Your task to perform on an android device: toggle notification dots Image 0: 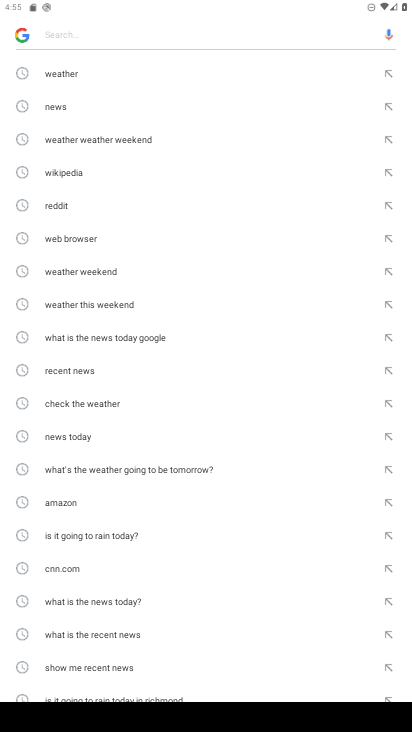
Step 0: press home button
Your task to perform on an android device: toggle notification dots Image 1: 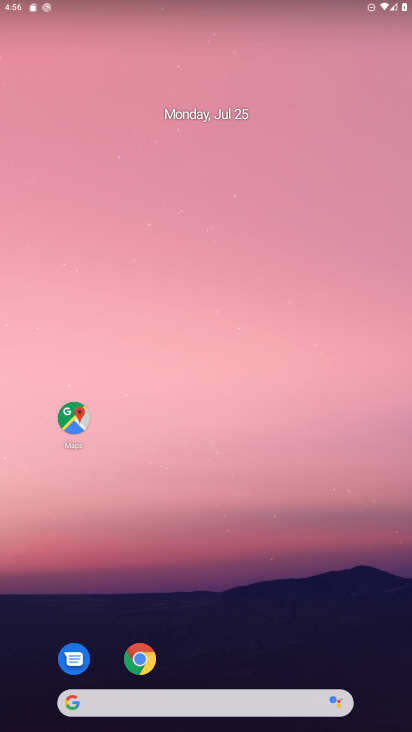
Step 1: drag from (190, 499) to (190, 218)
Your task to perform on an android device: toggle notification dots Image 2: 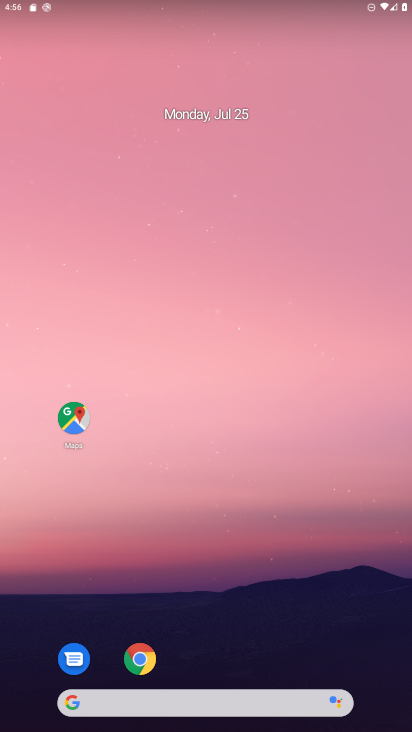
Step 2: drag from (200, 600) to (170, 11)
Your task to perform on an android device: toggle notification dots Image 3: 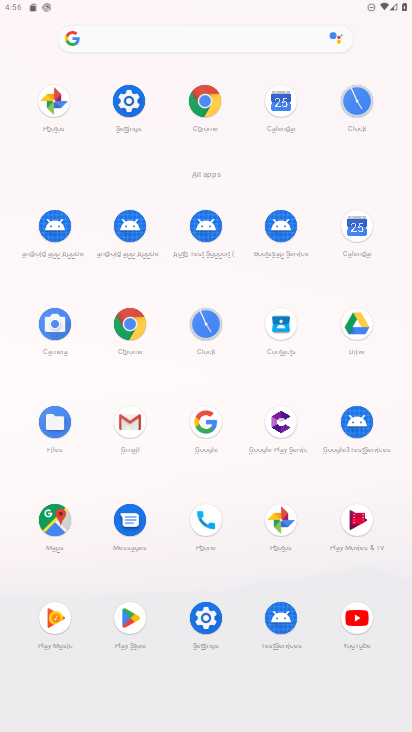
Step 3: click (130, 99)
Your task to perform on an android device: toggle notification dots Image 4: 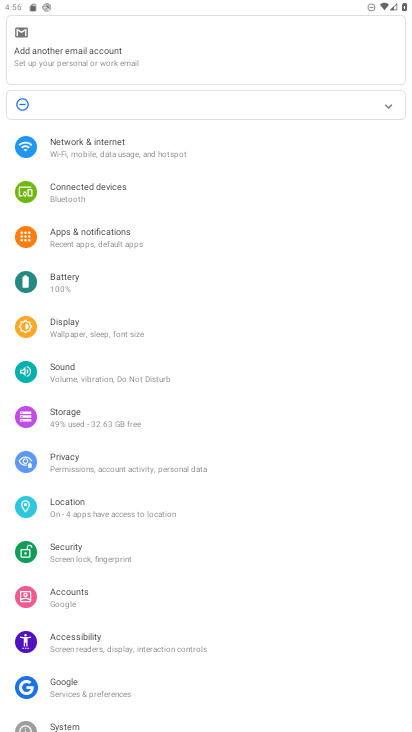
Step 4: click (78, 233)
Your task to perform on an android device: toggle notification dots Image 5: 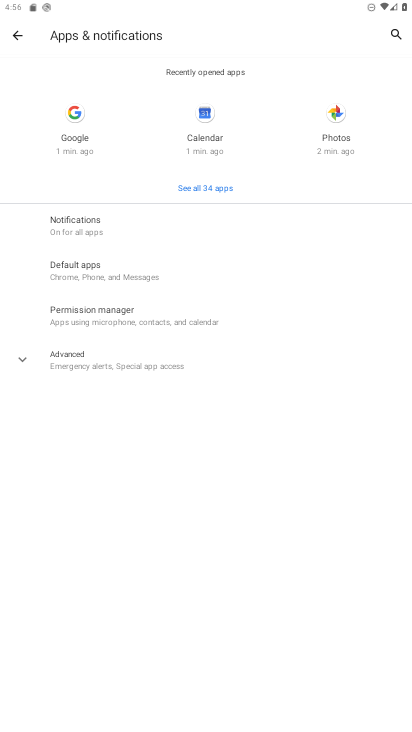
Step 5: click (61, 229)
Your task to perform on an android device: toggle notification dots Image 6: 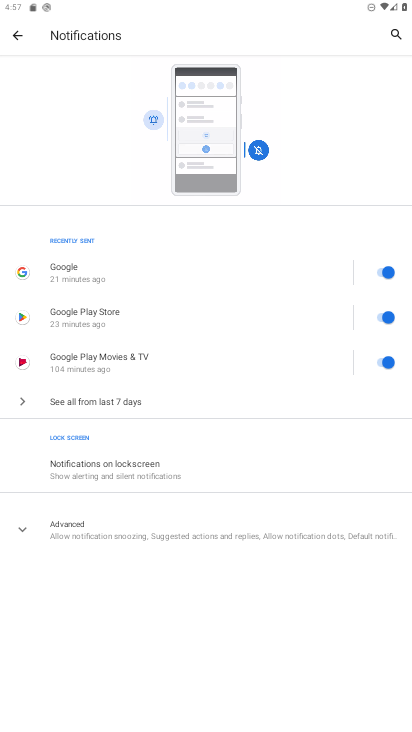
Step 6: click (62, 531)
Your task to perform on an android device: toggle notification dots Image 7: 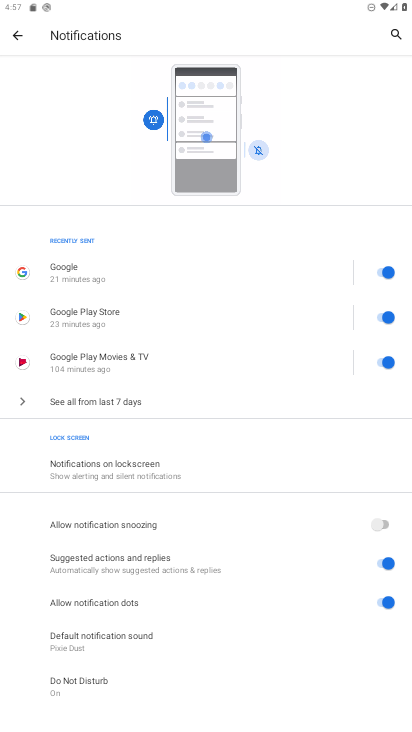
Step 7: click (376, 606)
Your task to perform on an android device: toggle notification dots Image 8: 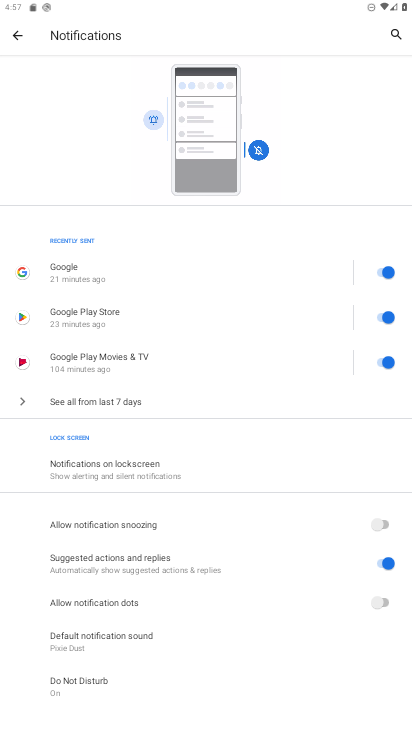
Step 8: task complete